Your task to perform on an android device: turn pop-ups off in chrome Image 0: 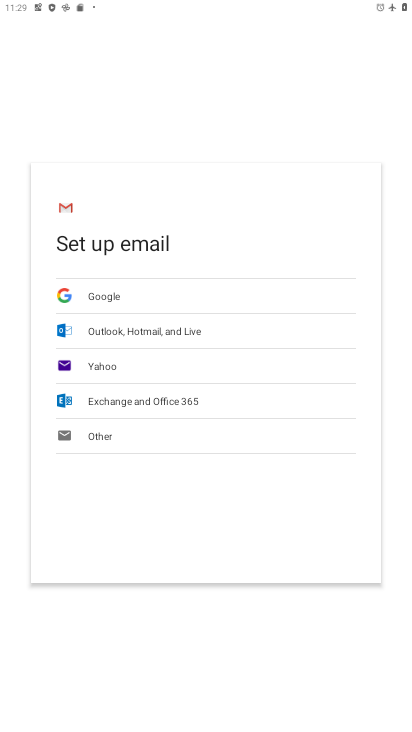
Step 0: press home button
Your task to perform on an android device: turn pop-ups off in chrome Image 1: 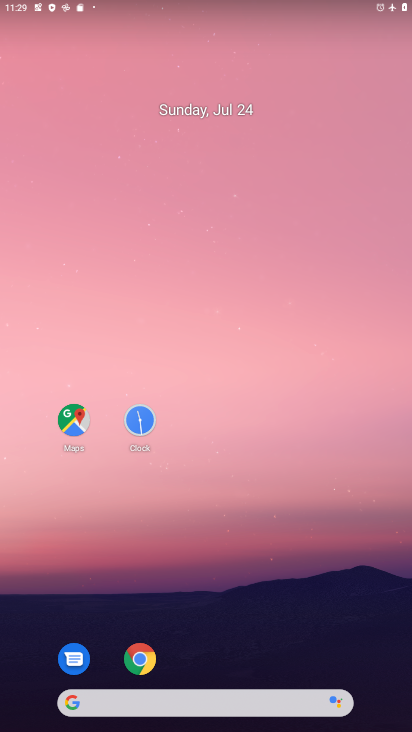
Step 1: click (137, 659)
Your task to perform on an android device: turn pop-ups off in chrome Image 2: 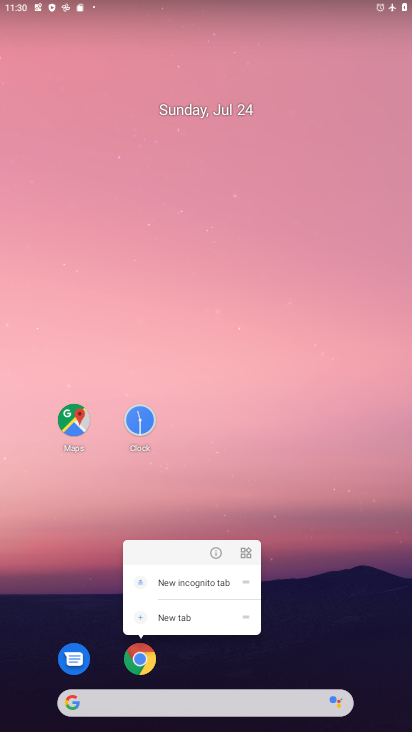
Step 2: click (138, 664)
Your task to perform on an android device: turn pop-ups off in chrome Image 3: 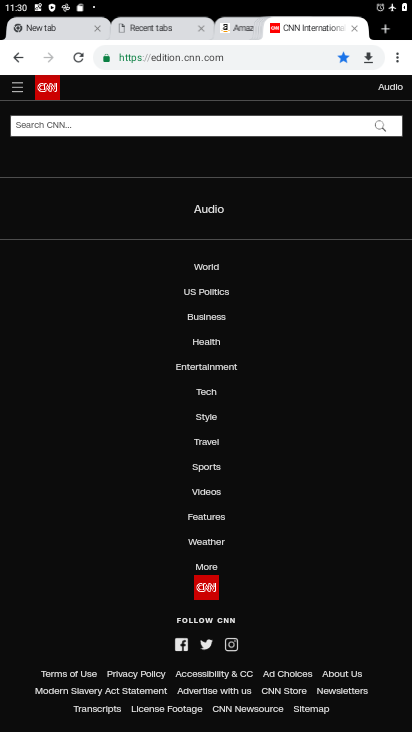
Step 3: click (400, 50)
Your task to perform on an android device: turn pop-ups off in chrome Image 4: 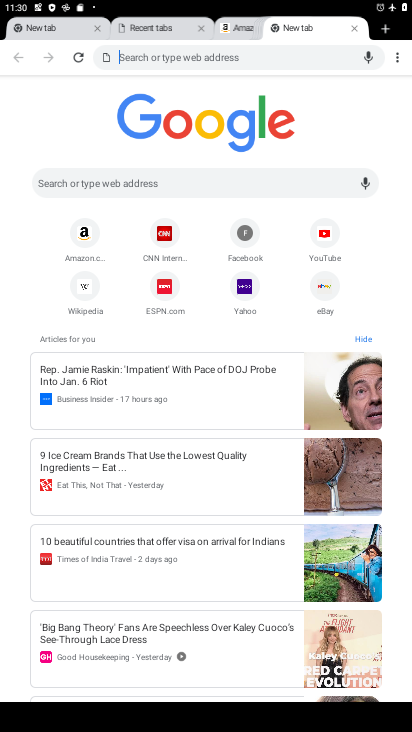
Step 4: click (399, 53)
Your task to perform on an android device: turn pop-ups off in chrome Image 5: 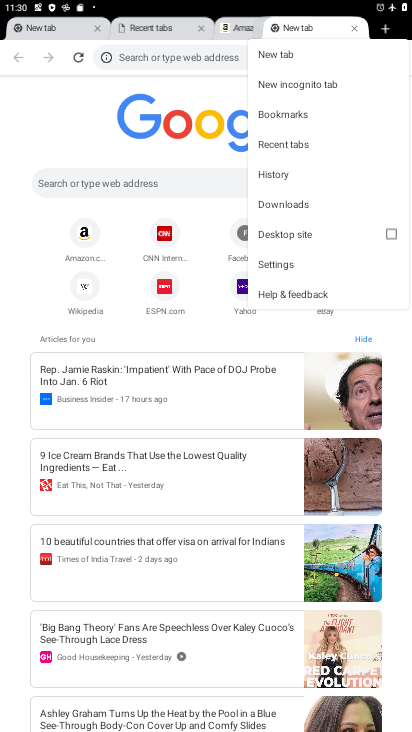
Step 5: click (276, 264)
Your task to perform on an android device: turn pop-ups off in chrome Image 6: 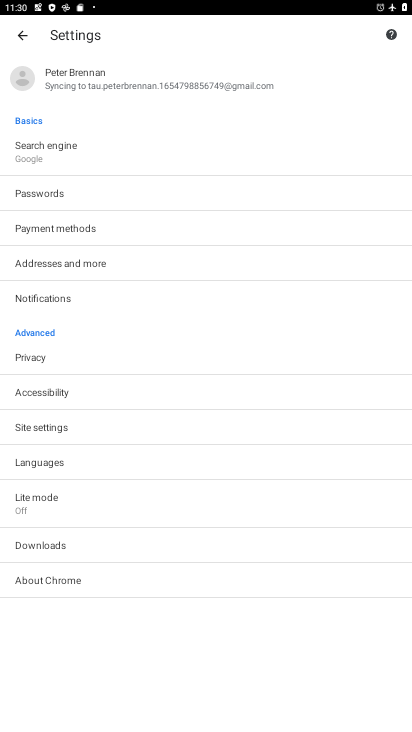
Step 6: click (37, 424)
Your task to perform on an android device: turn pop-ups off in chrome Image 7: 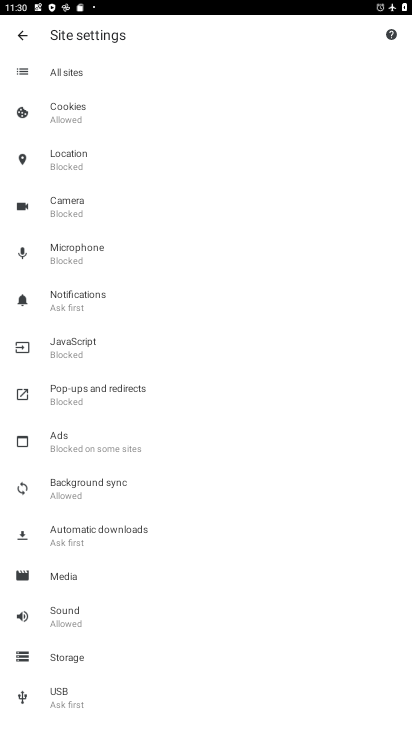
Step 7: click (73, 395)
Your task to perform on an android device: turn pop-ups off in chrome Image 8: 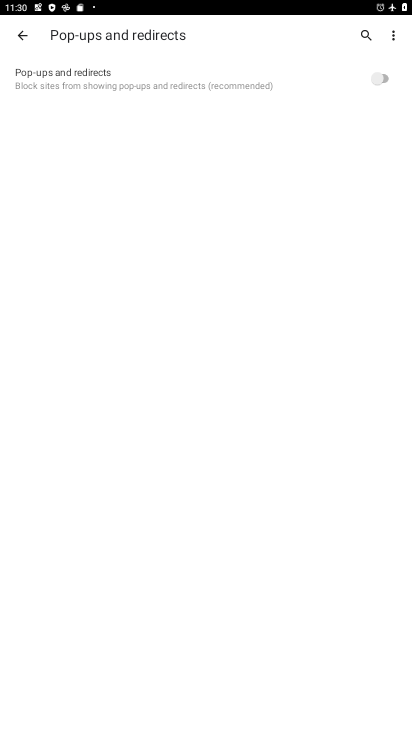
Step 8: task complete